Your task to perform on an android device: Open Android settings Image 0: 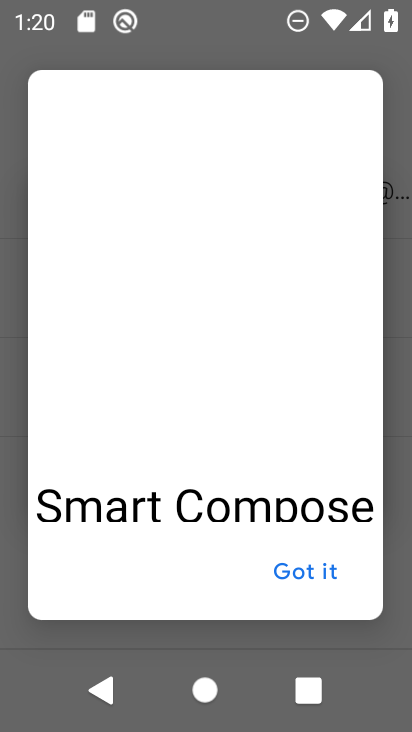
Step 0: press home button
Your task to perform on an android device: Open Android settings Image 1: 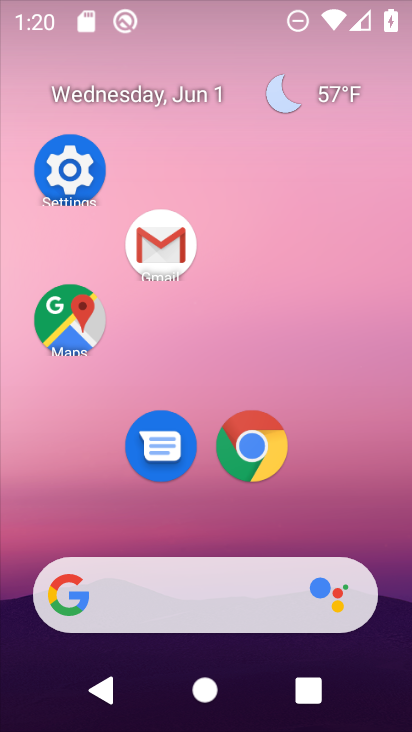
Step 1: click (72, 163)
Your task to perform on an android device: Open Android settings Image 2: 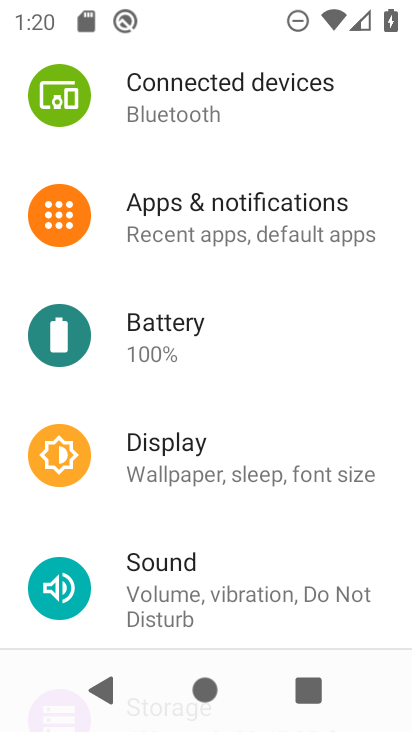
Step 2: task complete